Your task to perform on an android device: Show me popular games on the Play Store Image 0: 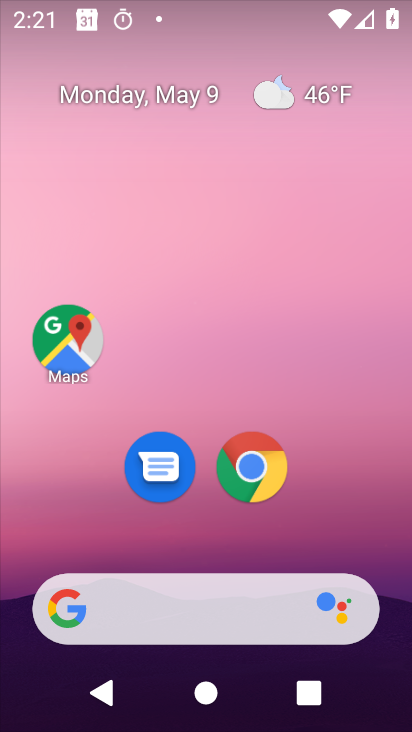
Step 0: drag from (289, 369) to (248, 42)
Your task to perform on an android device: Show me popular games on the Play Store Image 1: 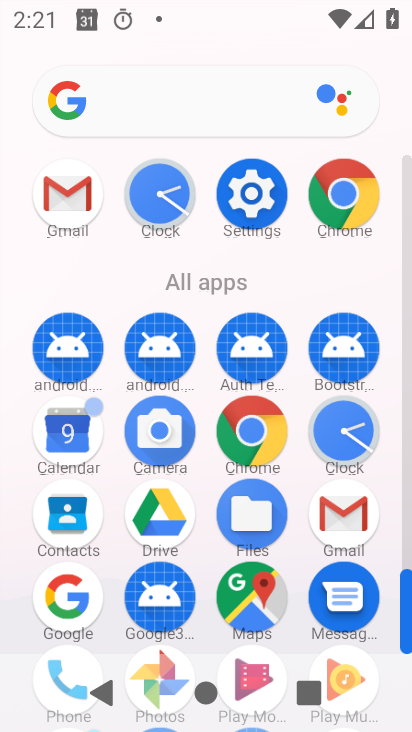
Step 1: drag from (294, 603) to (326, 289)
Your task to perform on an android device: Show me popular games on the Play Store Image 2: 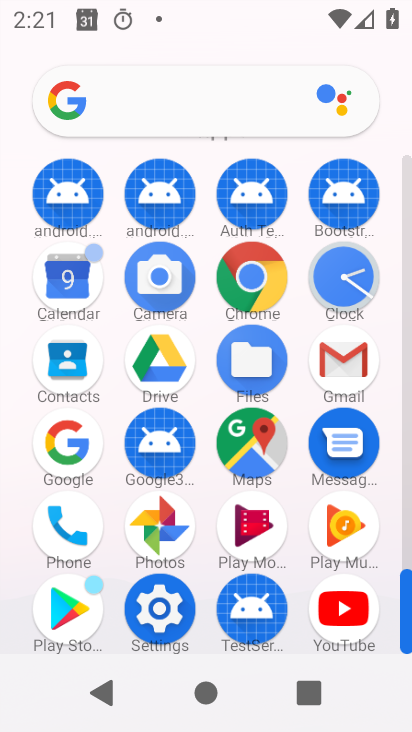
Step 2: click (70, 604)
Your task to perform on an android device: Show me popular games on the Play Store Image 3: 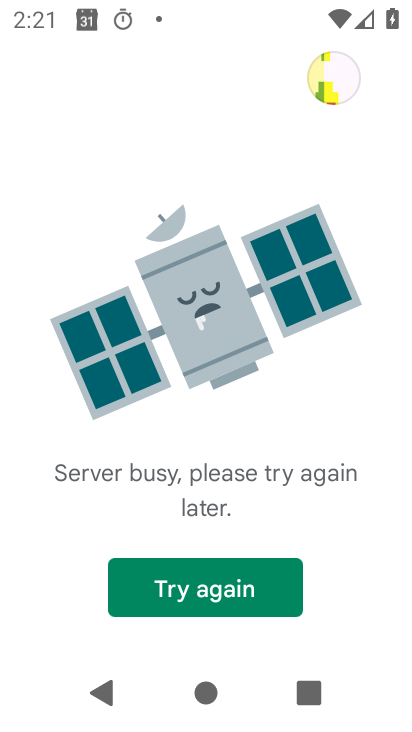
Step 3: task complete